Your task to perform on an android device: Add "rayovac triple a" to the cart on bestbuy, then select checkout. Image 0: 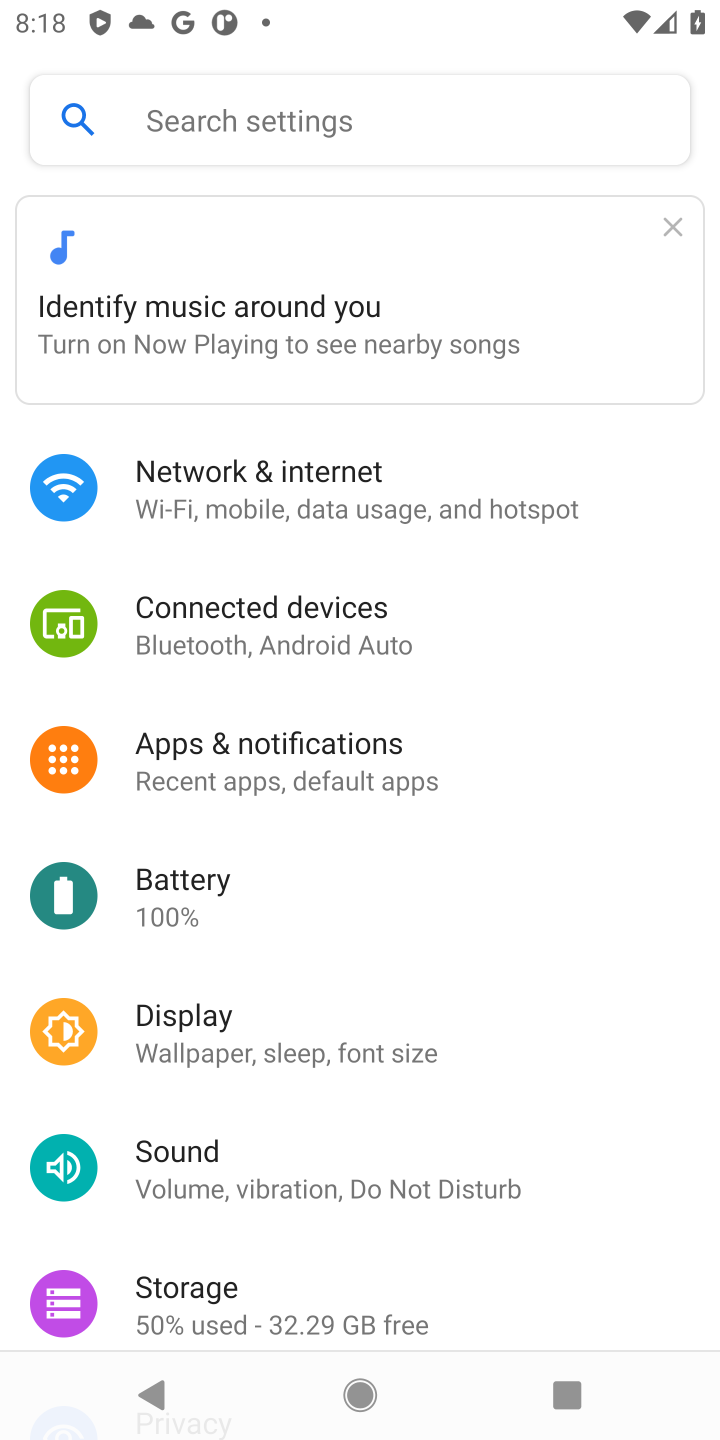
Step 0: press home button
Your task to perform on an android device: Add "rayovac triple a" to the cart on bestbuy, then select checkout. Image 1: 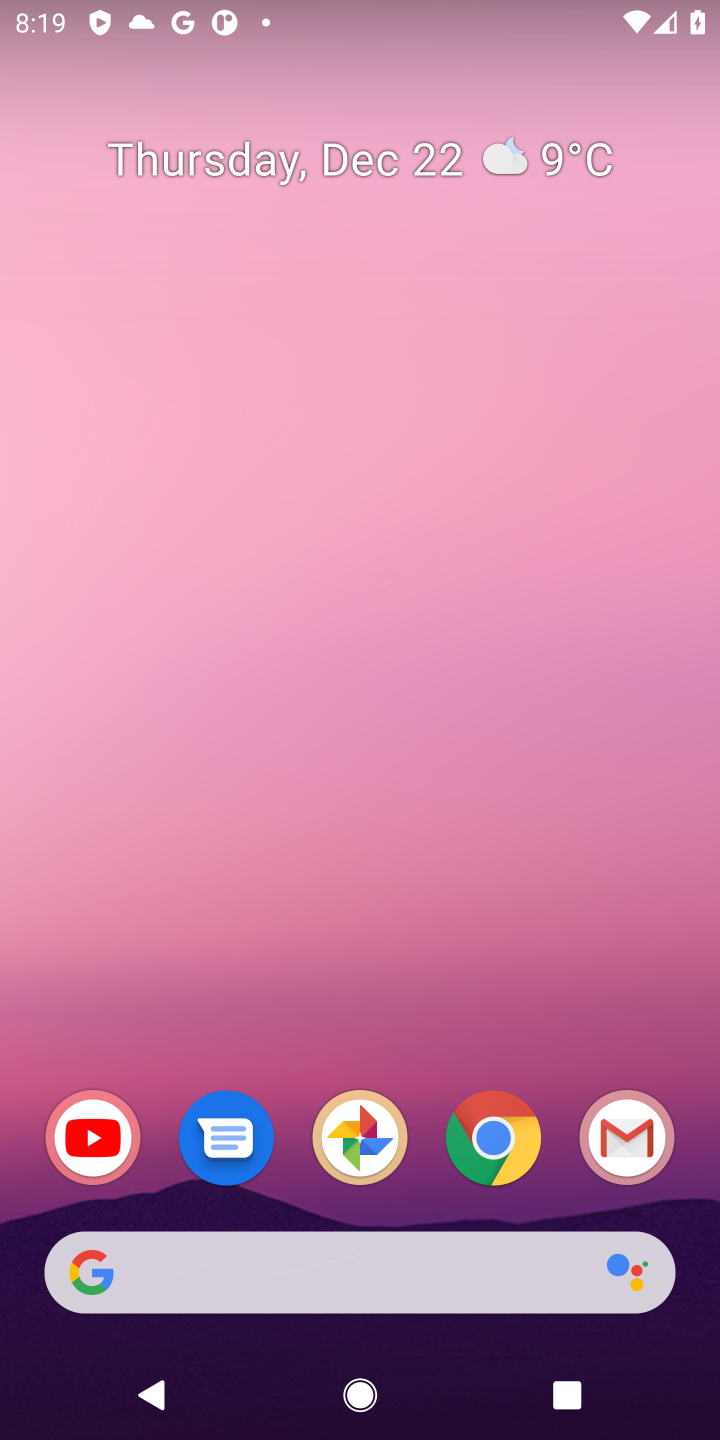
Step 1: click (489, 1146)
Your task to perform on an android device: Add "rayovac triple a" to the cart on bestbuy, then select checkout. Image 2: 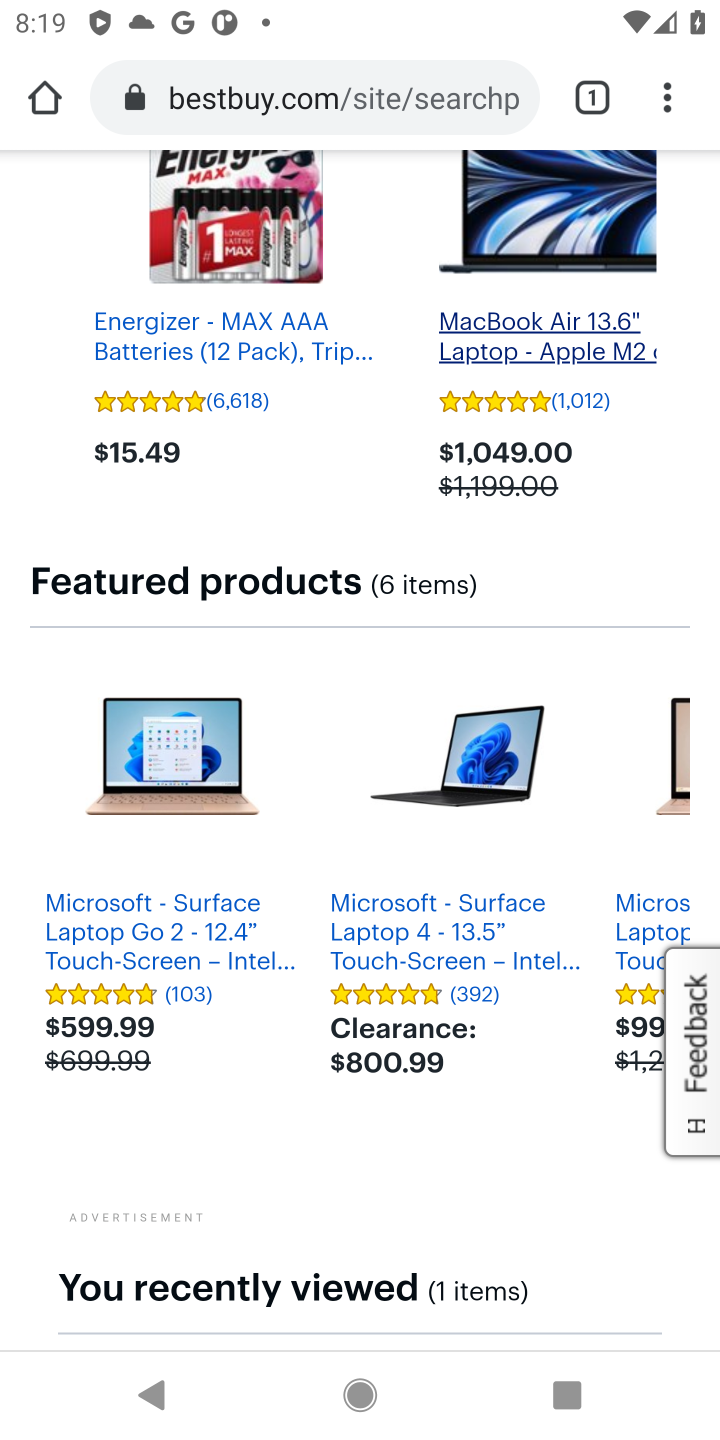
Step 2: click (292, 99)
Your task to perform on an android device: Add "rayovac triple a" to the cart on bestbuy, then select checkout. Image 3: 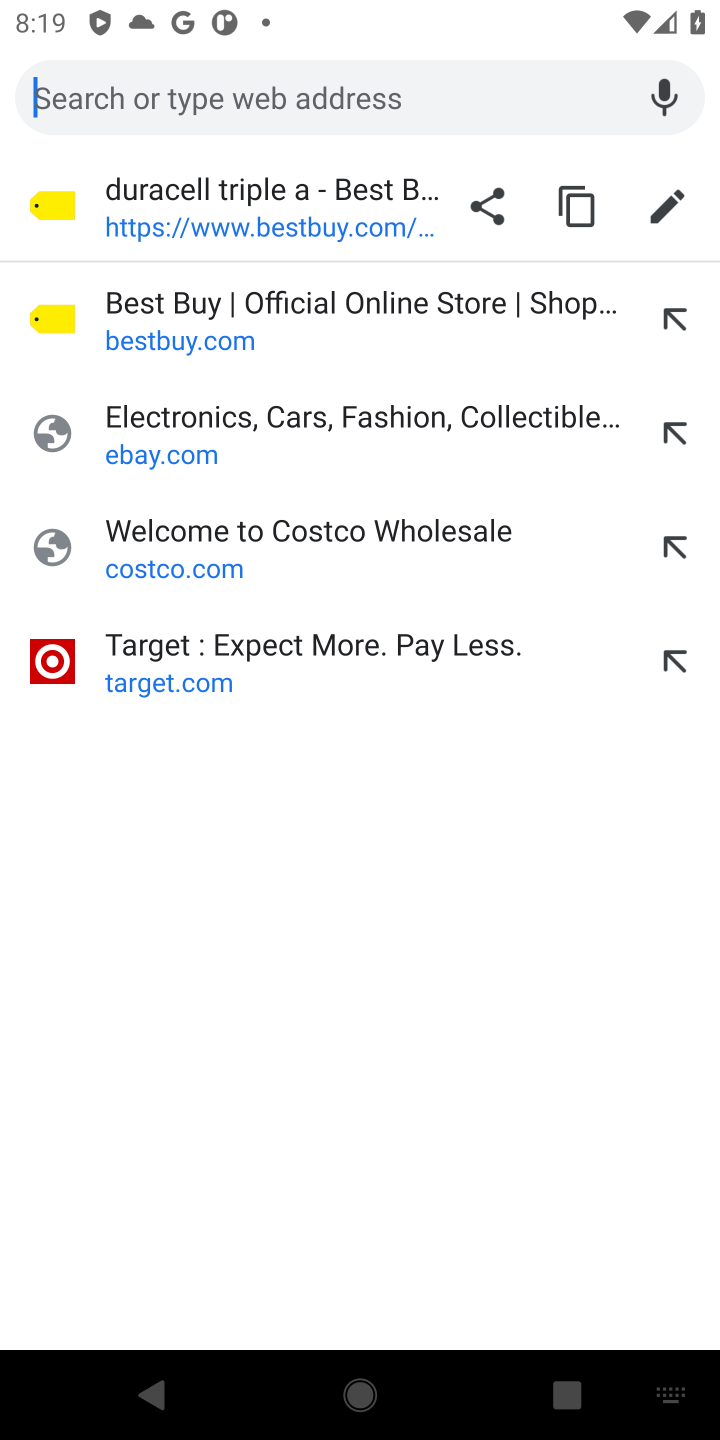
Step 3: type "bestbuy"
Your task to perform on an android device: Add "rayovac triple a" to the cart on bestbuy, then select checkout. Image 4: 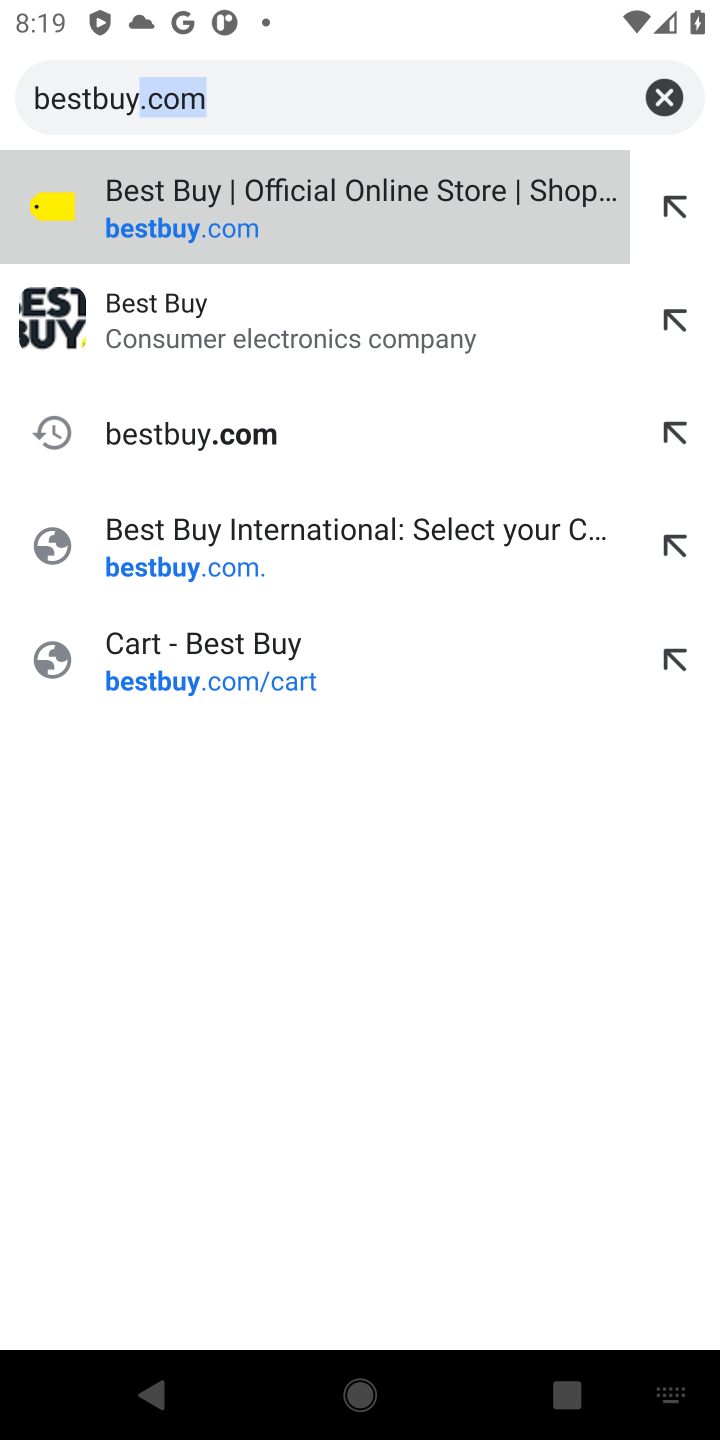
Step 4: click (174, 217)
Your task to perform on an android device: Add "rayovac triple a" to the cart on bestbuy, then select checkout. Image 5: 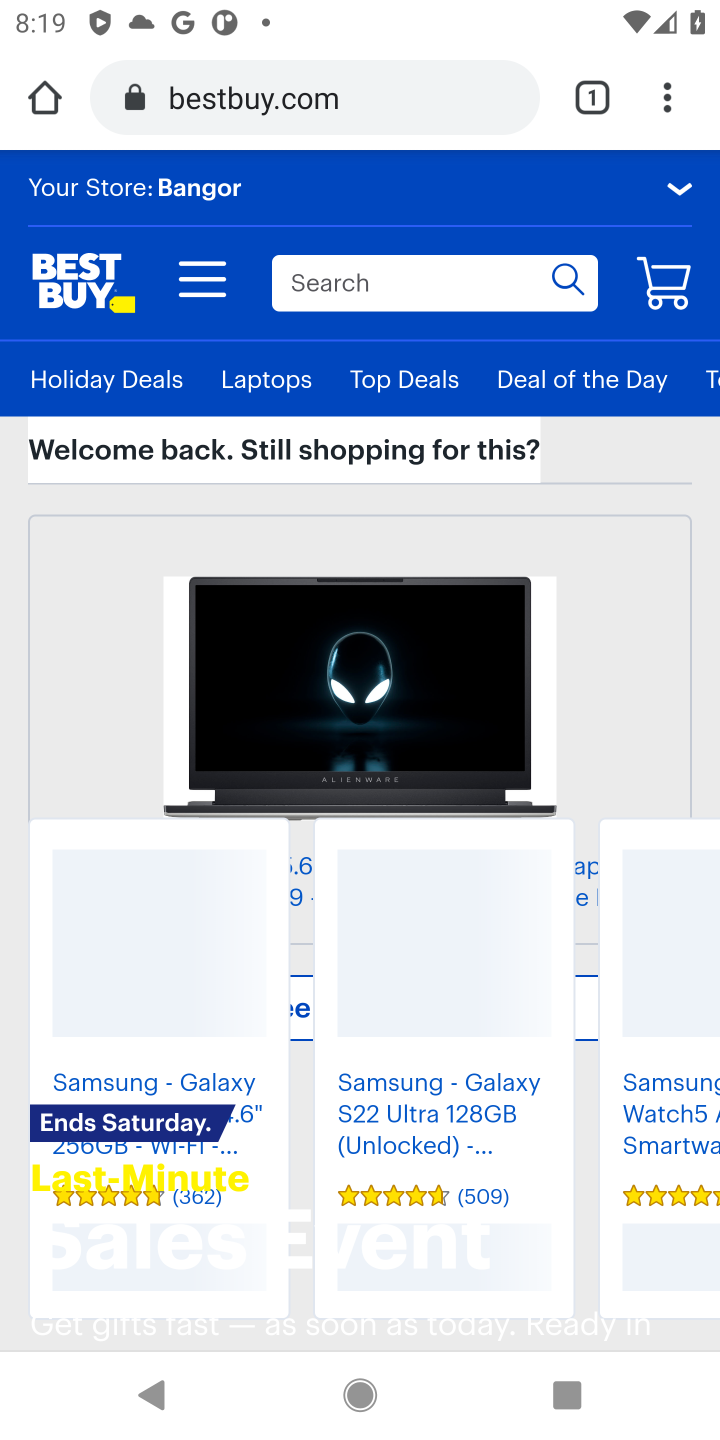
Step 5: click (400, 299)
Your task to perform on an android device: Add "rayovac triple a" to the cart on bestbuy, then select checkout. Image 6: 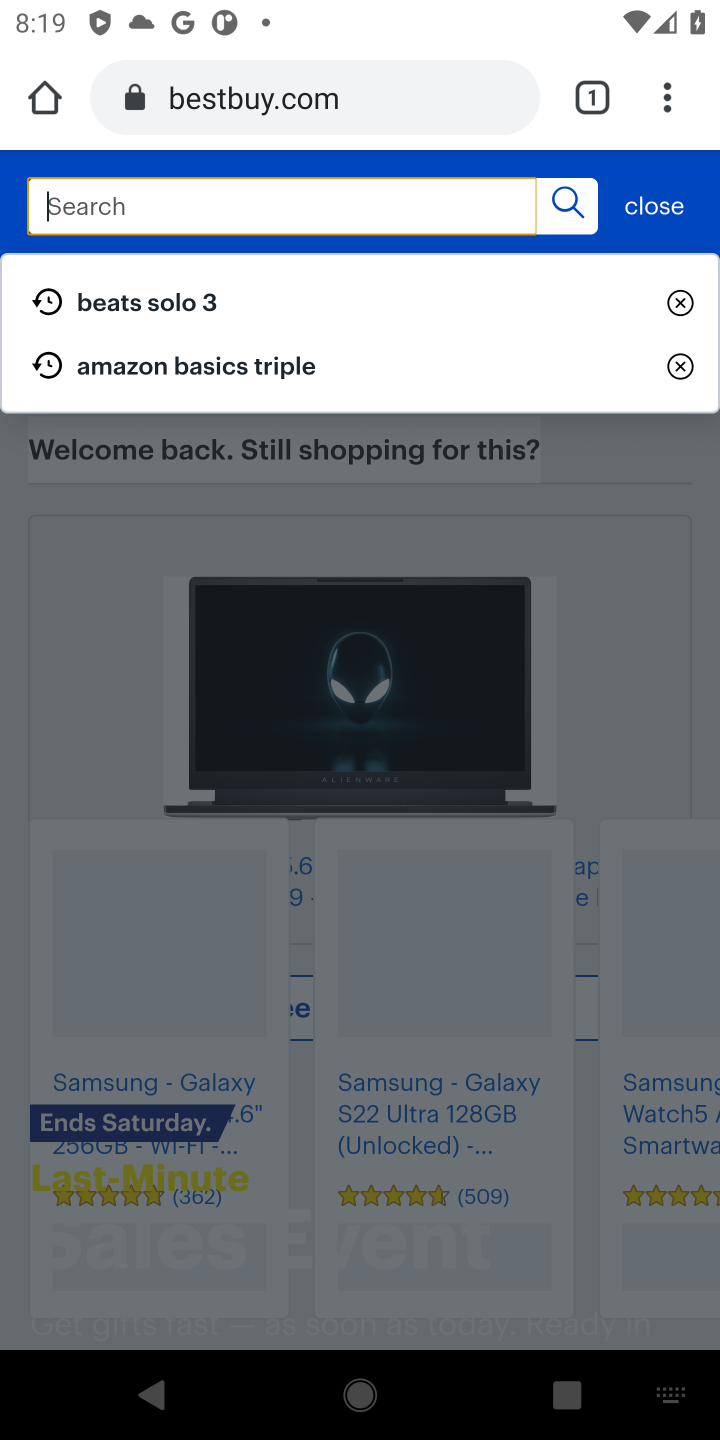
Step 6: type "rayovac triple a"
Your task to perform on an android device: Add "rayovac triple a" to the cart on bestbuy, then select checkout. Image 7: 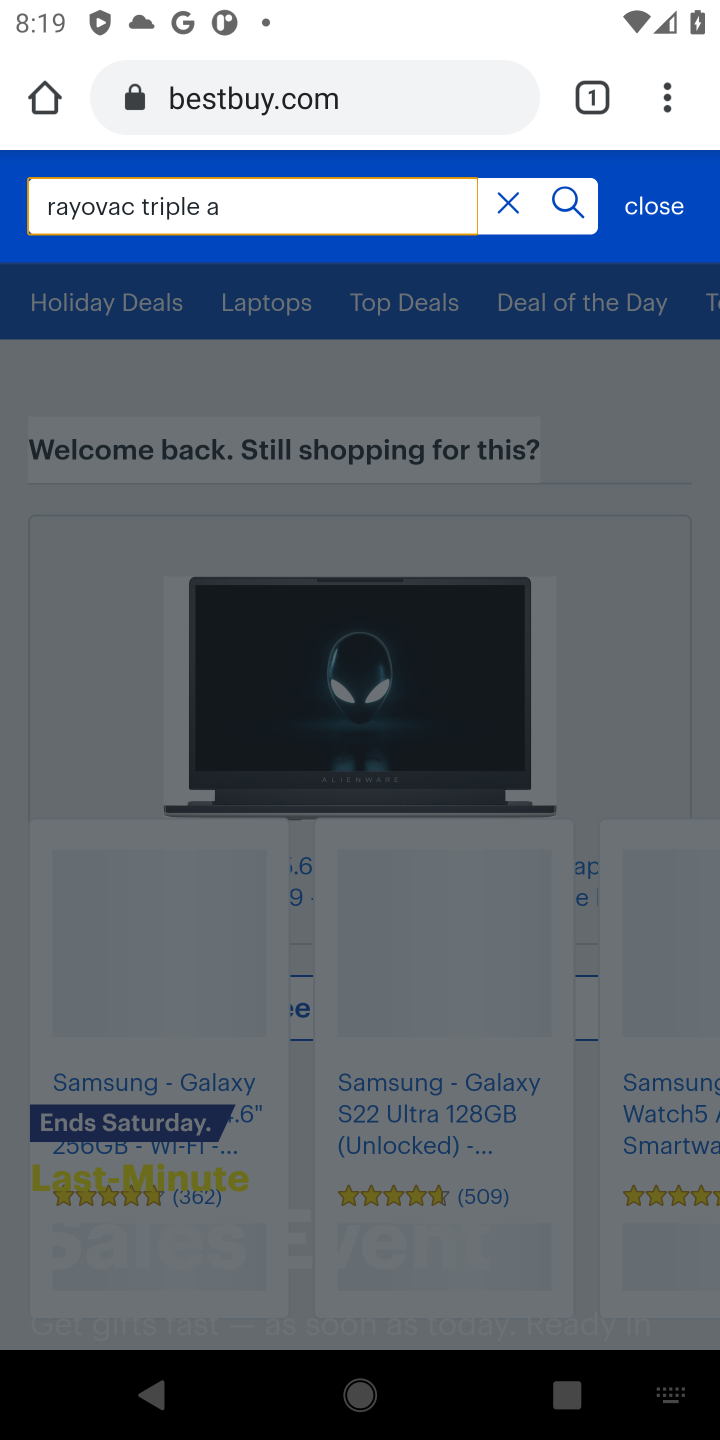
Step 7: press enter
Your task to perform on an android device: Add "rayovac triple a" to the cart on bestbuy, then select checkout. Image 8: 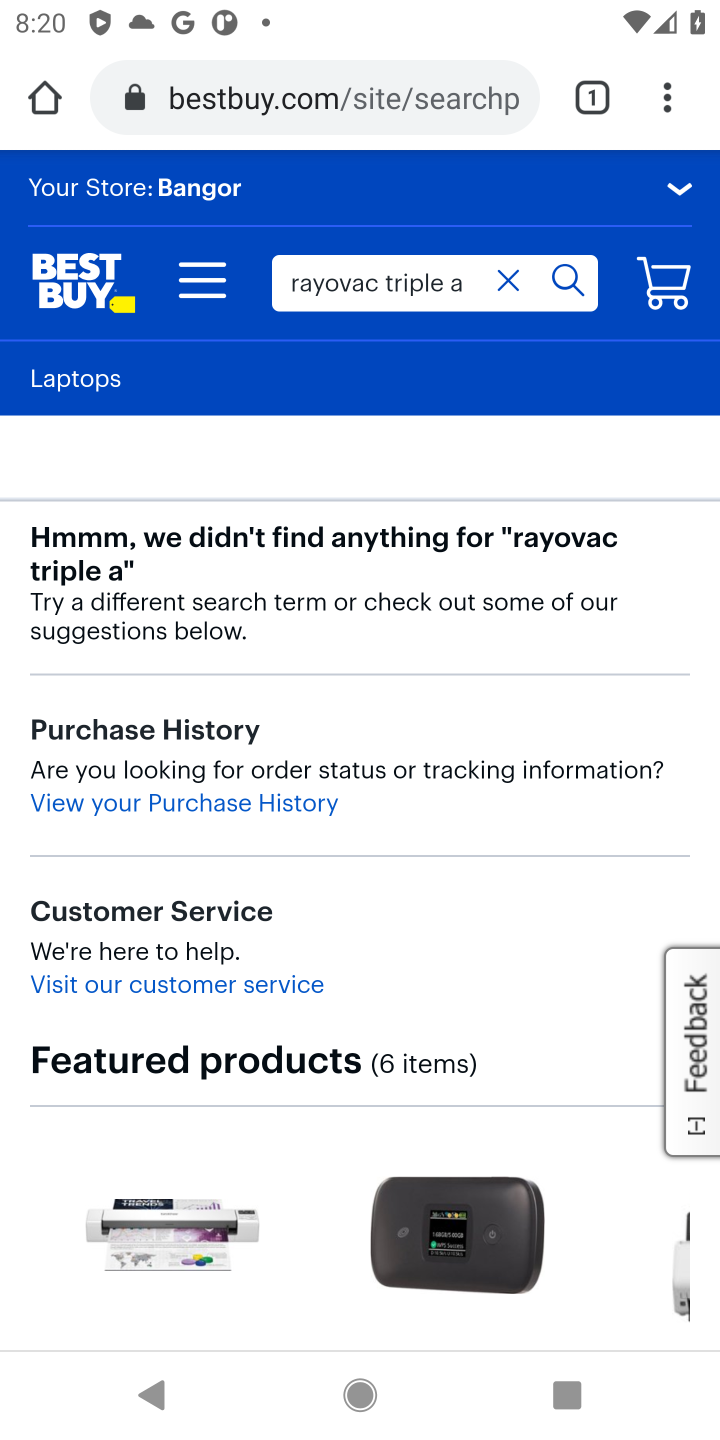
Step 8: task complete